Your task to perform on an android device: Open Google Chrome and click the shortcut for Amazon.com Image 0: 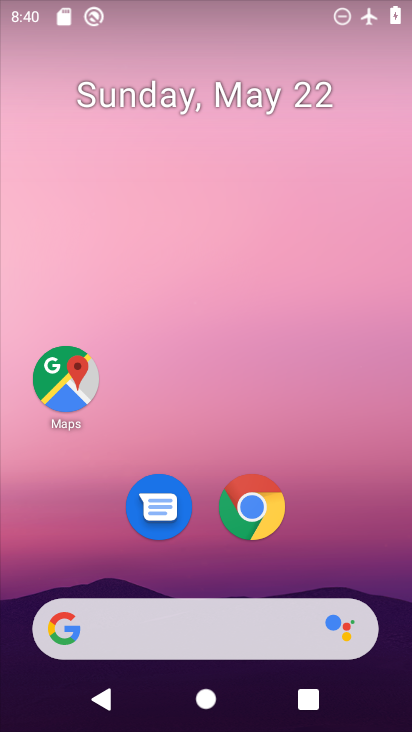
Step 0: click (248, 497)
Your task to perform on an android device: Open Google Chrome and click the shortcut for Amazon.com Image 1: 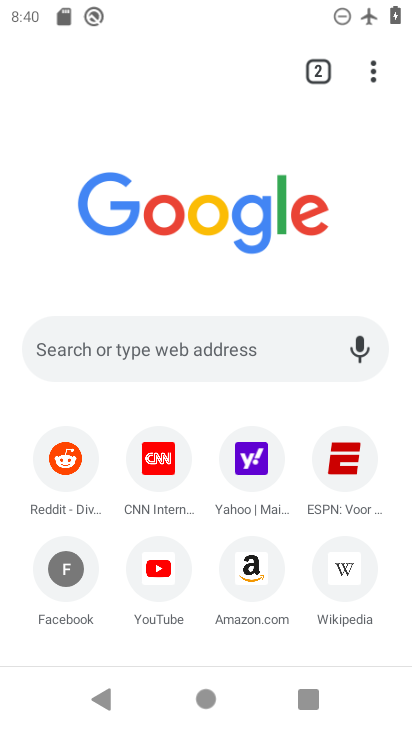
Step 1: click (249, 565)
Your task to perform on an android device: Open Google Chrome and click the shortcut for Amazon.com Image 2: 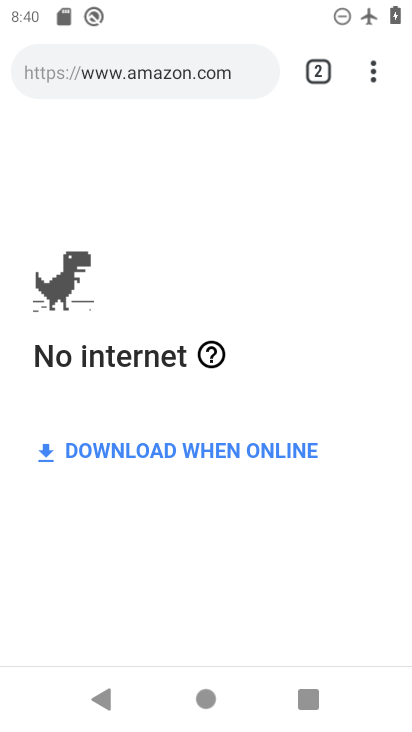
Step 2: task complete